Your task to perform on an android device: add a contact Image 0: 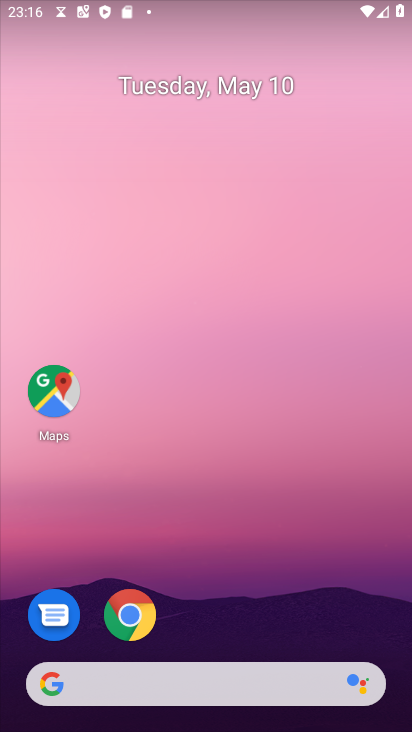
Step 0: drag from (231, 542) to (190, 115)
Your task to perform on an android device: add a contact Image 1: 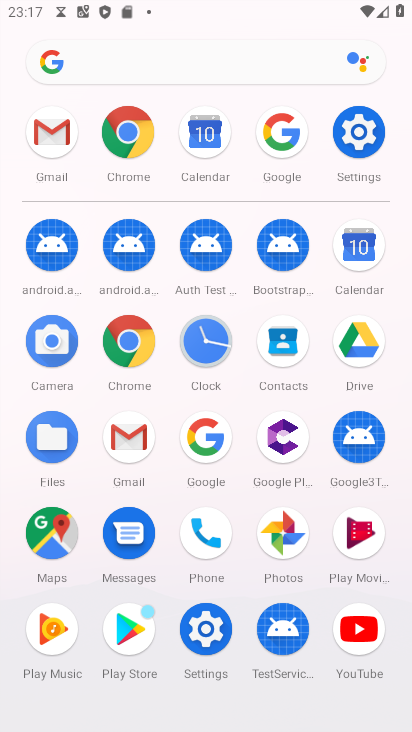
Step 1: click (283, 343)
Your task to perform on an android device: add a contact Image 2: 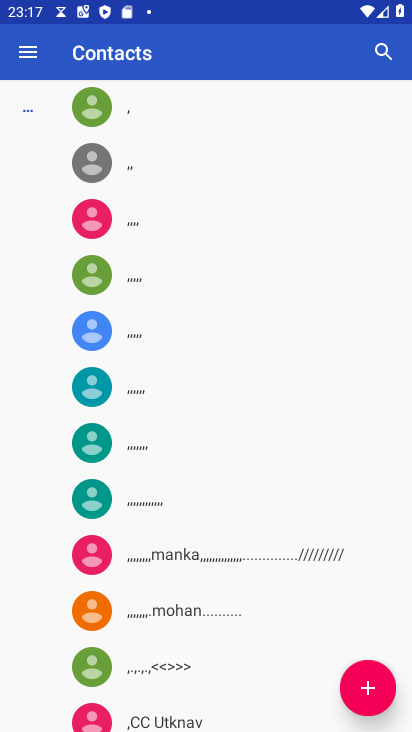
Step 2: click (367, 686)
Your task to perform on an android device: add a contact Image 3: 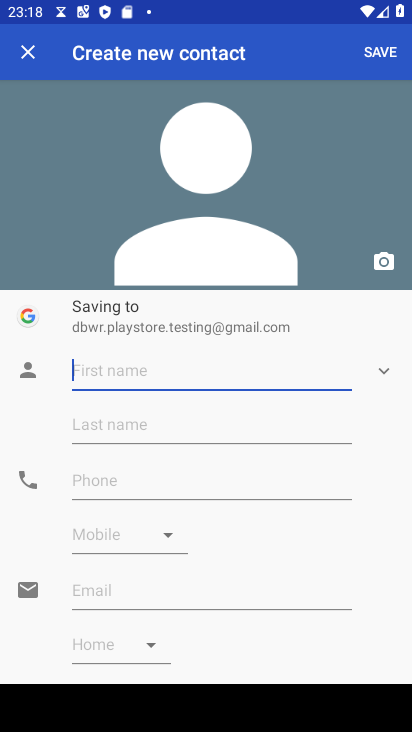
Step 3: type "Narendra Singh"
Your task to perform on an android device: add a contact Image 4: 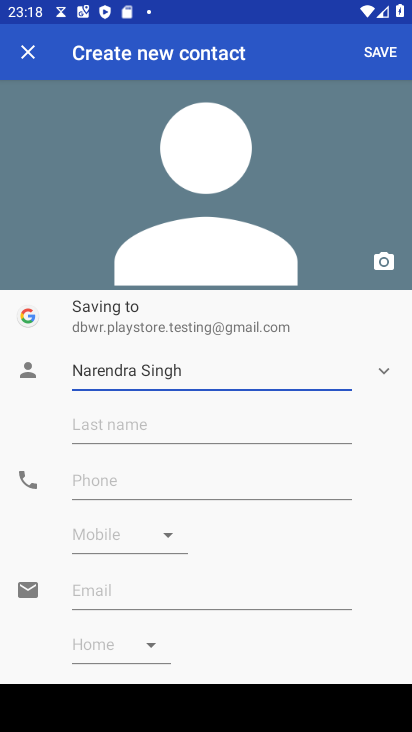
Step 4: click (211, 425)
Your task to perform on an android device: add a contact Image 5: 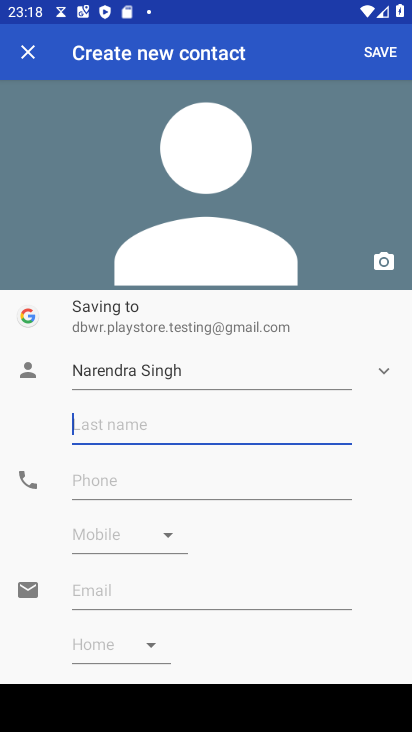
Step 5: click (200, 436)
Your task to perform on an android device: add a contact Image 6: 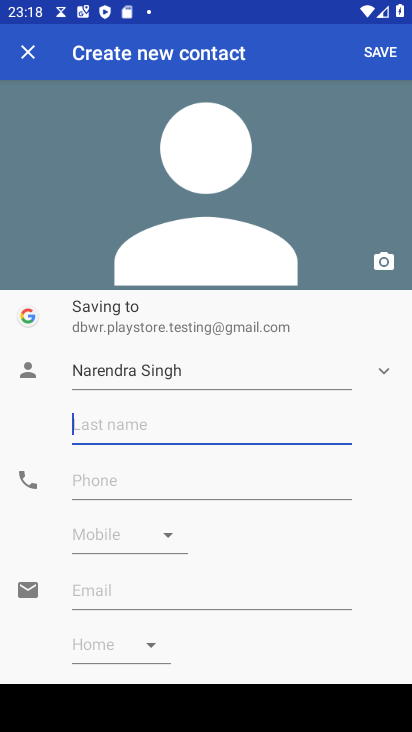
Step 6: type "Tomar"
Your task to perform on an android device: add a contact Image 7: 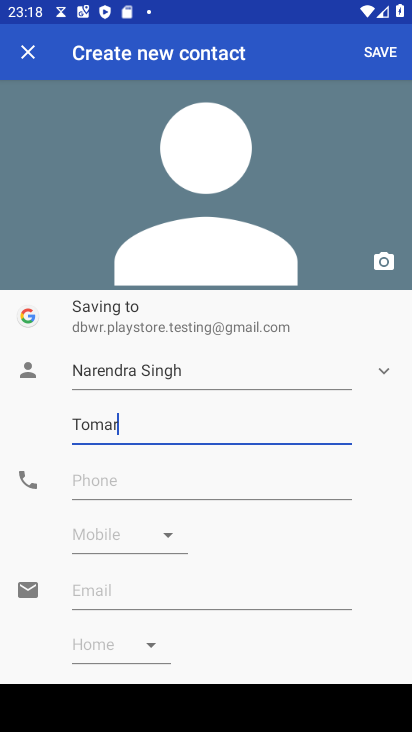
Step 7: click (154, 471)
Your task to perform on an android device: add a contact Image 8: 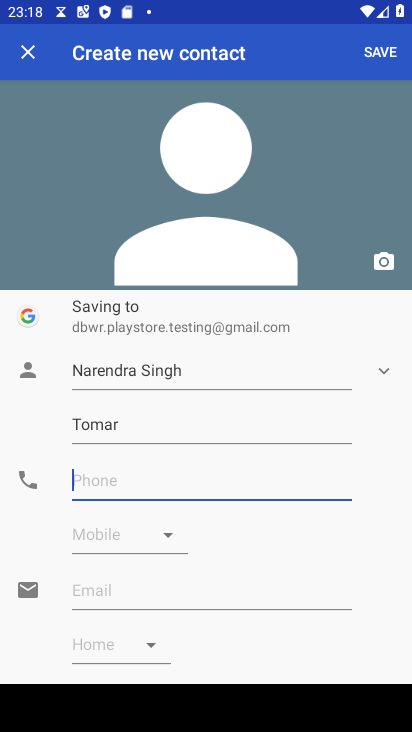
Step 8: type "07654562398"
Your task to perform on an android device: add a contact Image 9: 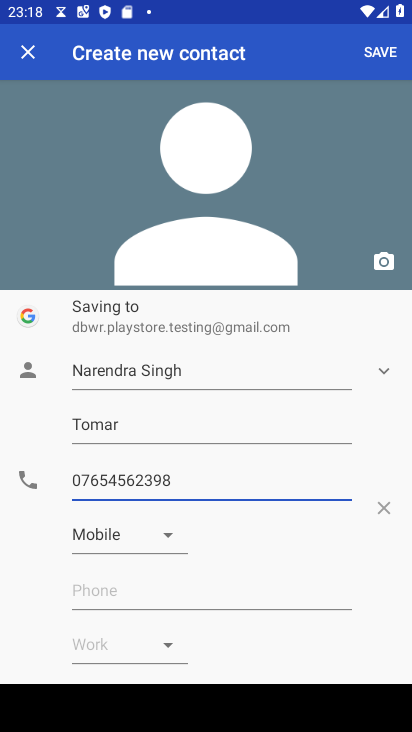
Step 9: click (381, 46)
Your task to perform on an android device: add a contact Image 10: 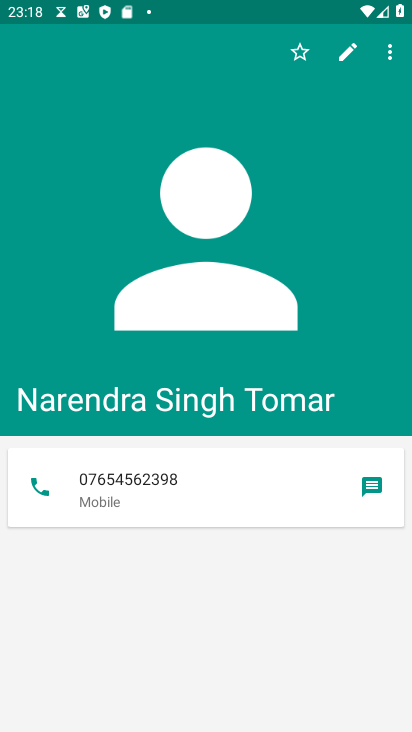
Step 10: task complete